Your task to perform on an android device: move a message to another label in the gmail app Image 0: 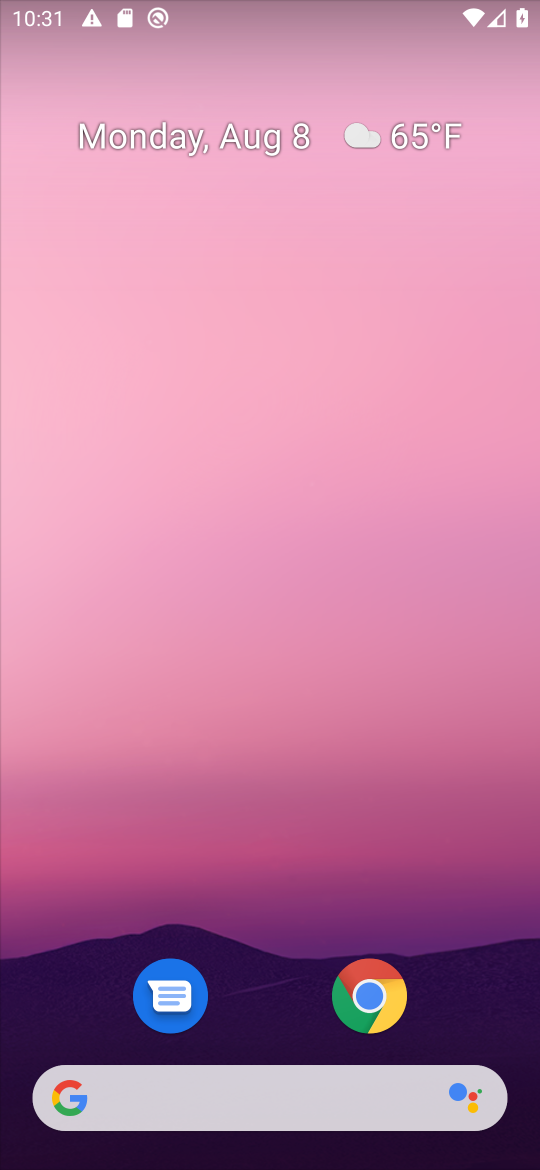
Step 0: press home button
Your task to perform on an android device: move a message to another label in the gmail app Image 1: 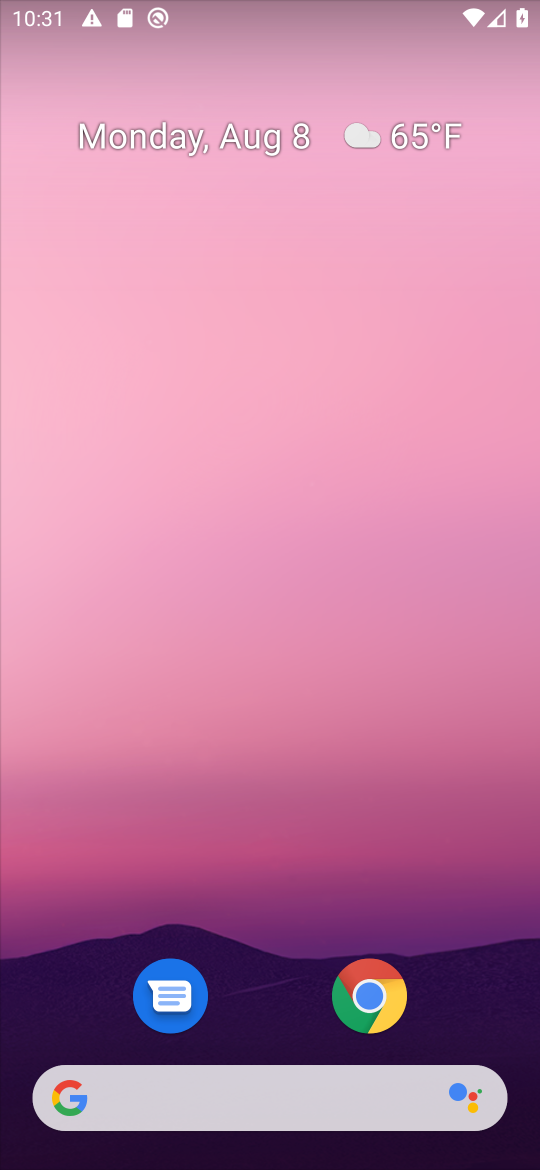
Step 1: drag from (286, 1031) to (162, 437)
Your task to perform on an android device: move a message to another label in the gmail app Image 2: 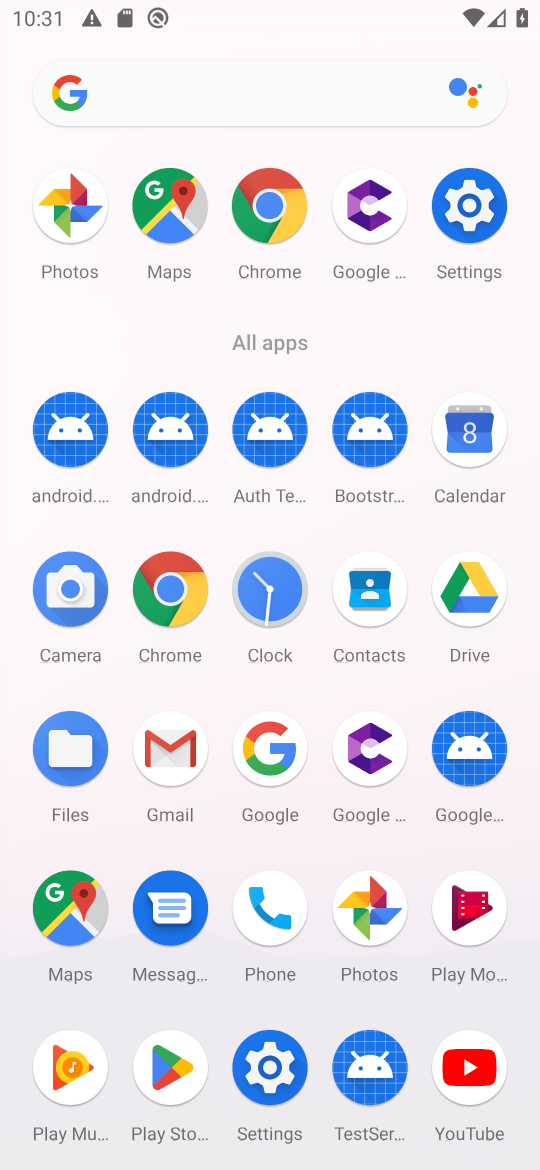
Step 2: click (181, 752)
Your task to perform on an android device: move a message to another label in the gmail app Image 3: 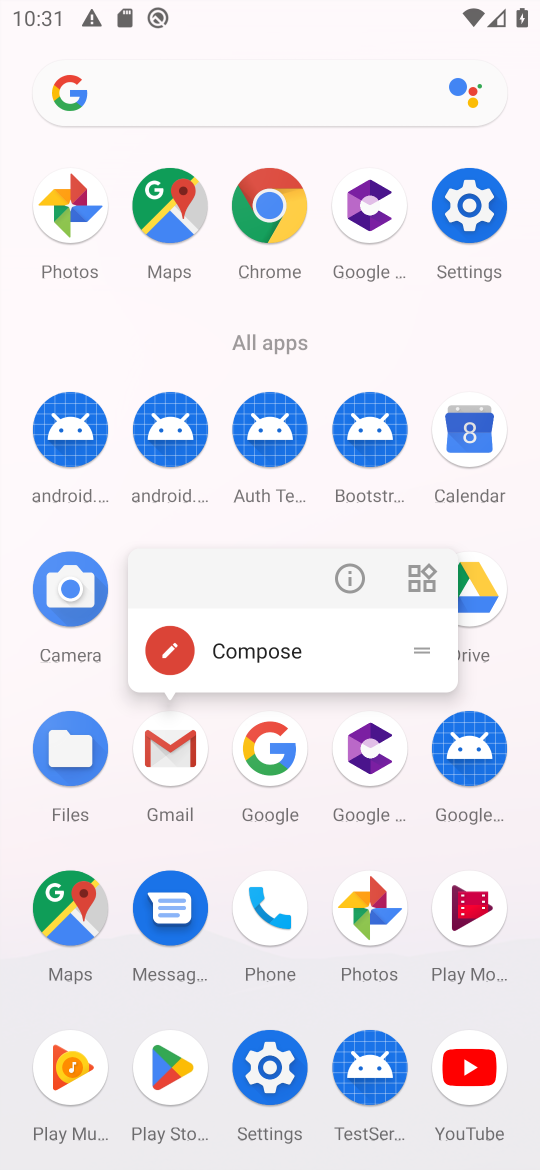
Step 3: click (167, 757)
Your task to perform on an android device: move a message to another label in the gmail app Image 4: 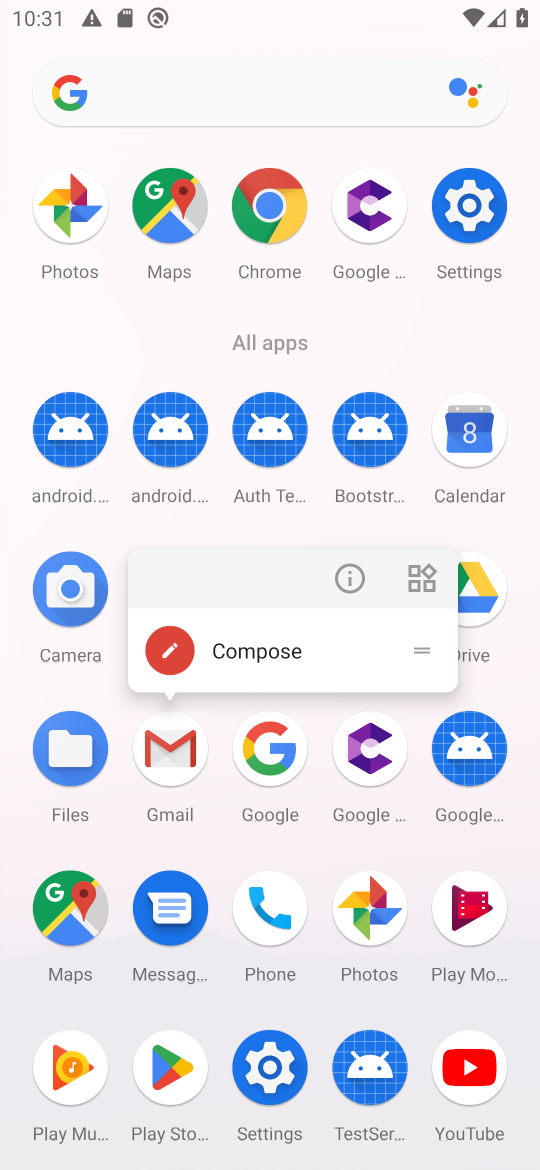
Step 4: click (161, 762)
Your task to perform on an android device: move a message to another label in the gmail app Image 5: 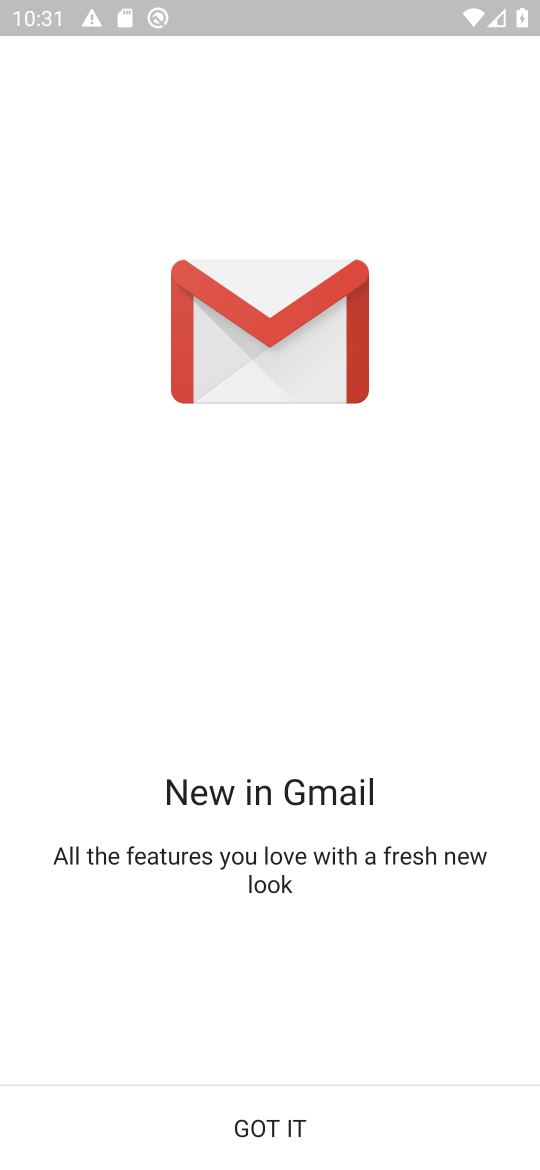
Step 5: click (294, 1132)
Your task to perform on an android device: move a message to another label in the gmail app Image 6: 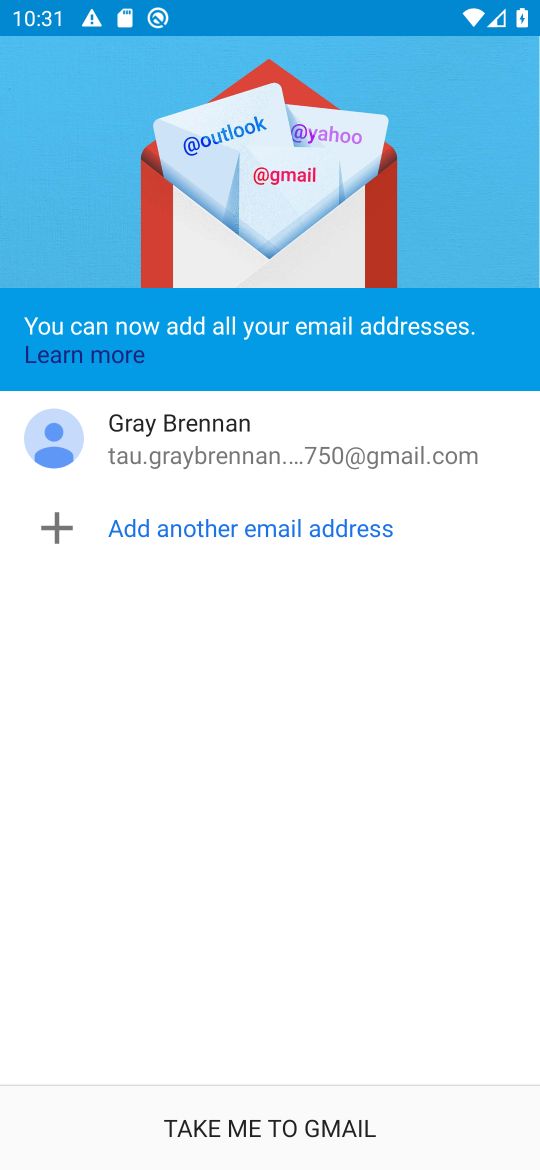
Step 6: click (283, 1137)
Your task to perform on an android device: move a message to another label in the gmail app Image 7: 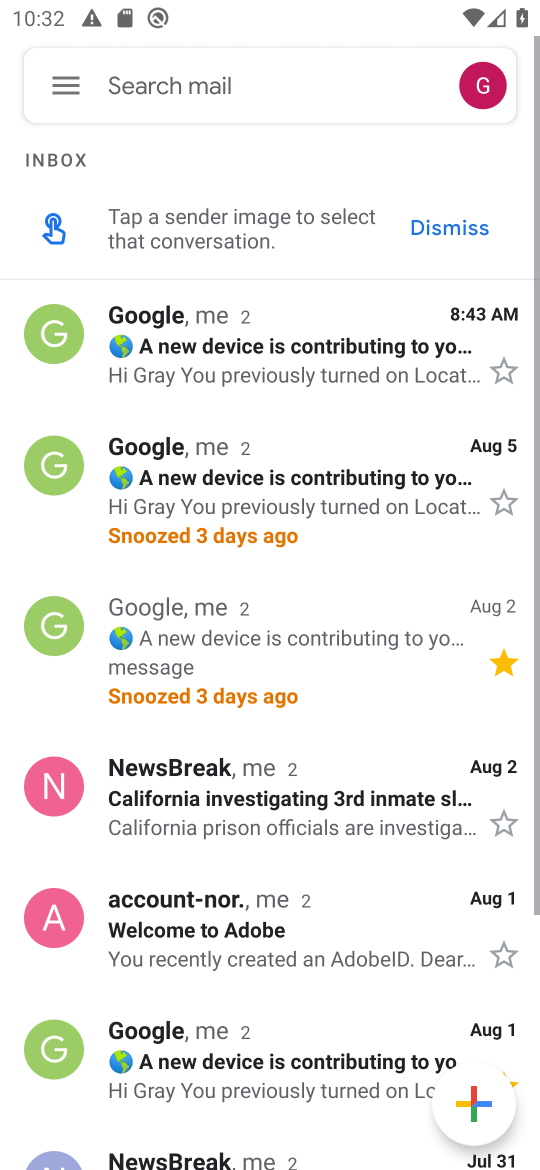
Step 7: click (344, 381)
Your task to perform on an android device: move a message to another label in the gmail app Image 8: 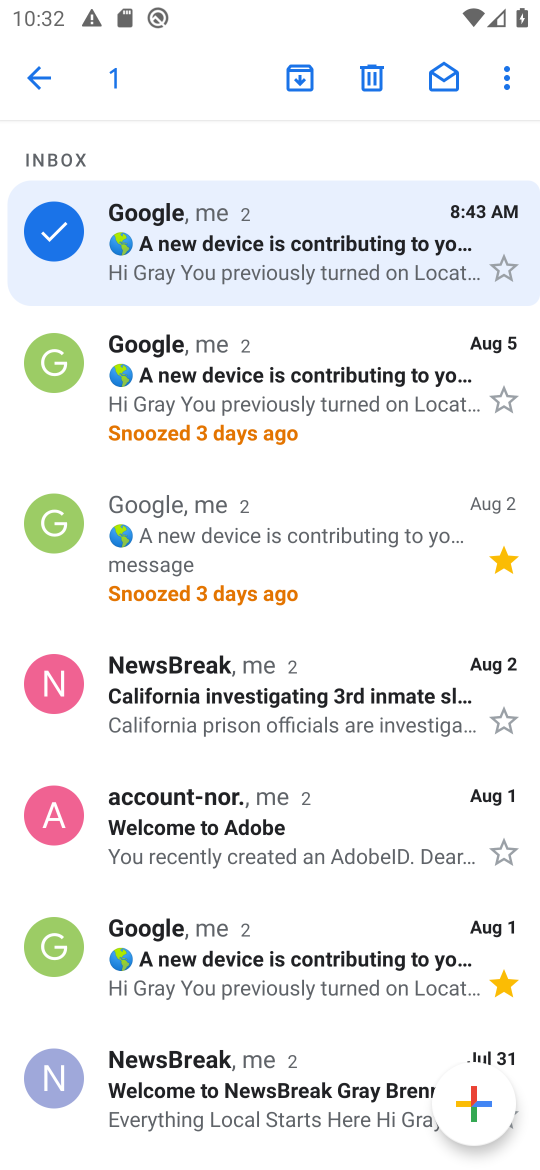
Step 8: click (512, 76)
Your task to perform on an android device: move a message to another label in the gmail app Image 9: 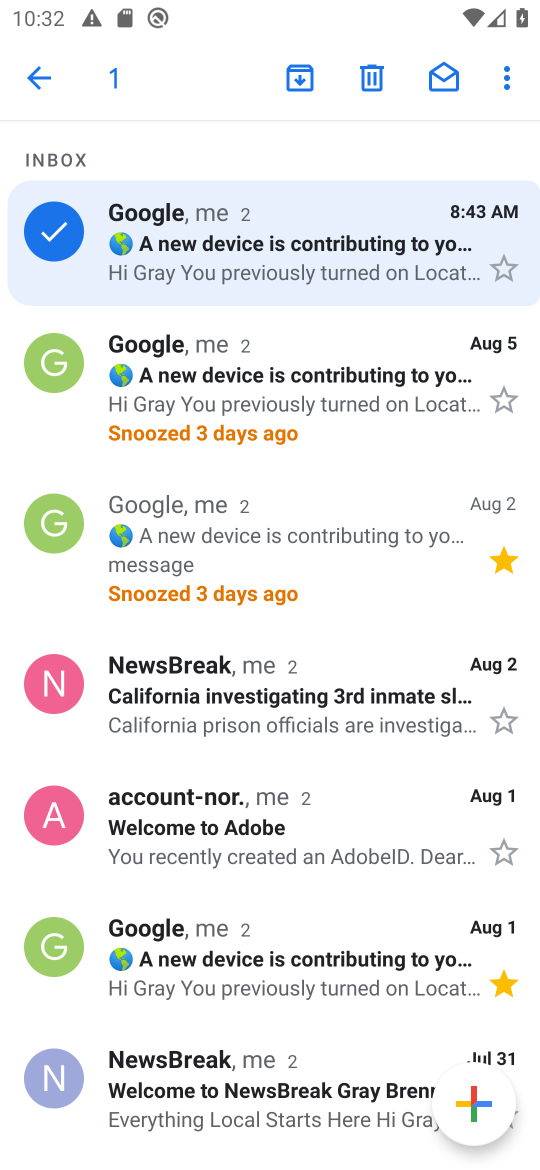
Step 9: click (514, 80)
Your task to perform on an android device: move a message to another label in the gmail app Image 10: 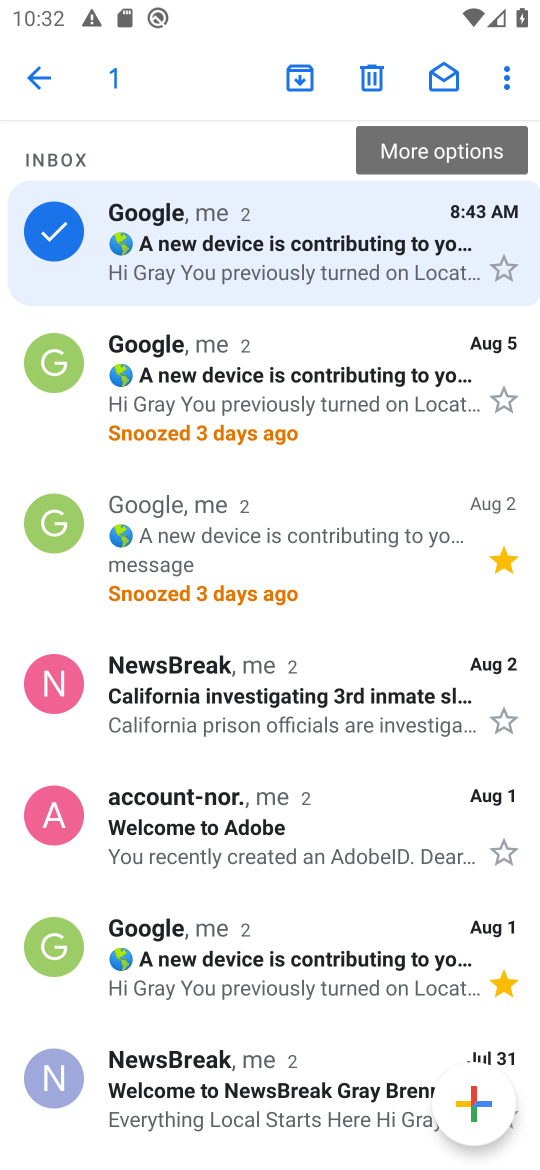
Step 10: click (365, 244)
Your task to perform on an android device: move a message to another label in the gmail app Image 11: 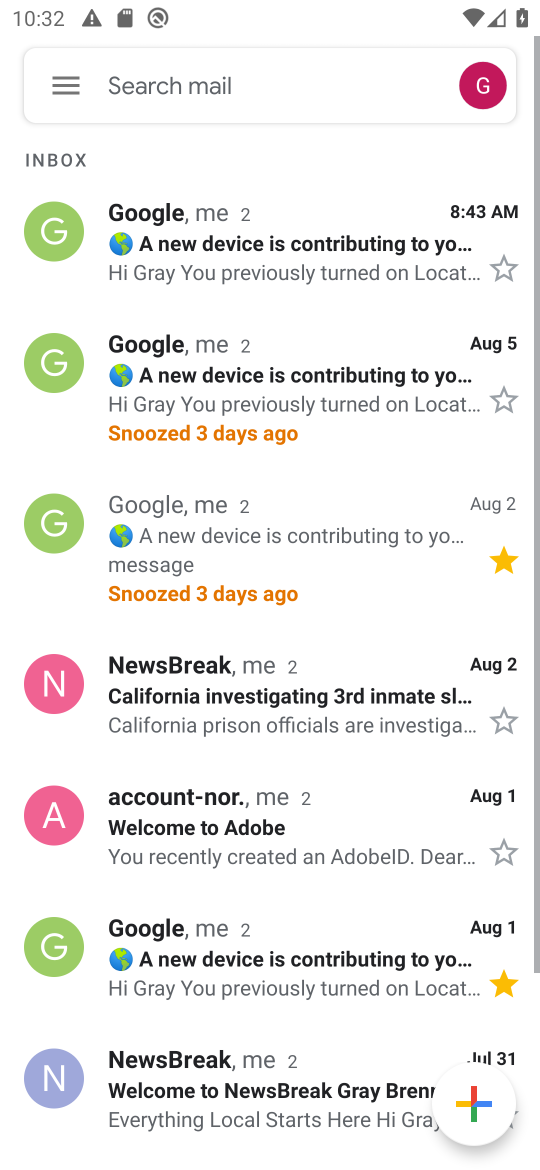
Step 11: click (364, 244)
Your task to perform on an android device: move a message to another label in the gmail app Image 12: 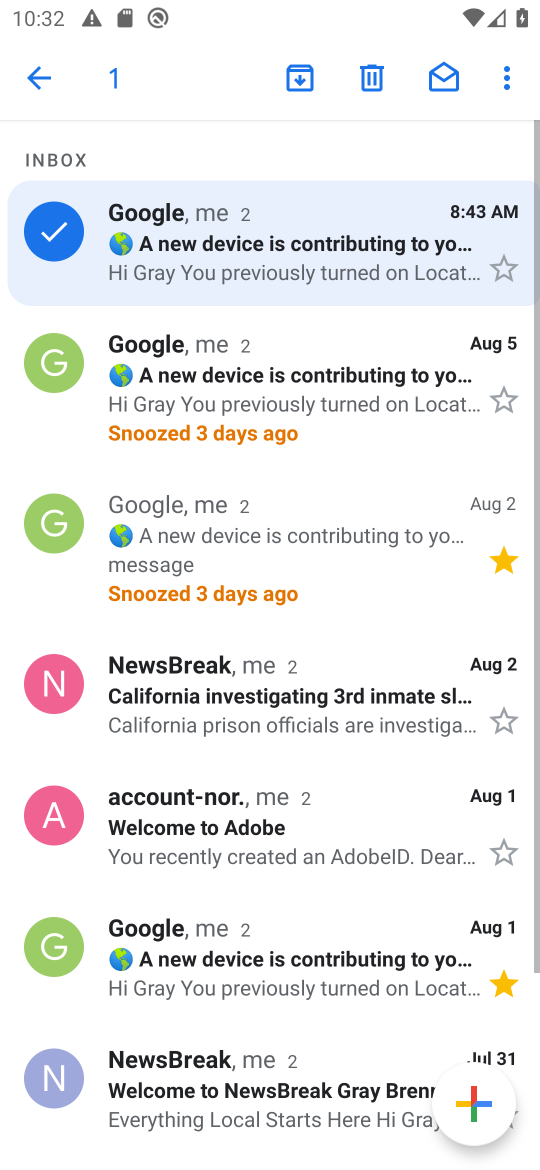
Step 12: click (364, 244)
Your task to perform on an android device: move a message to another label in the gmail app Image 13: 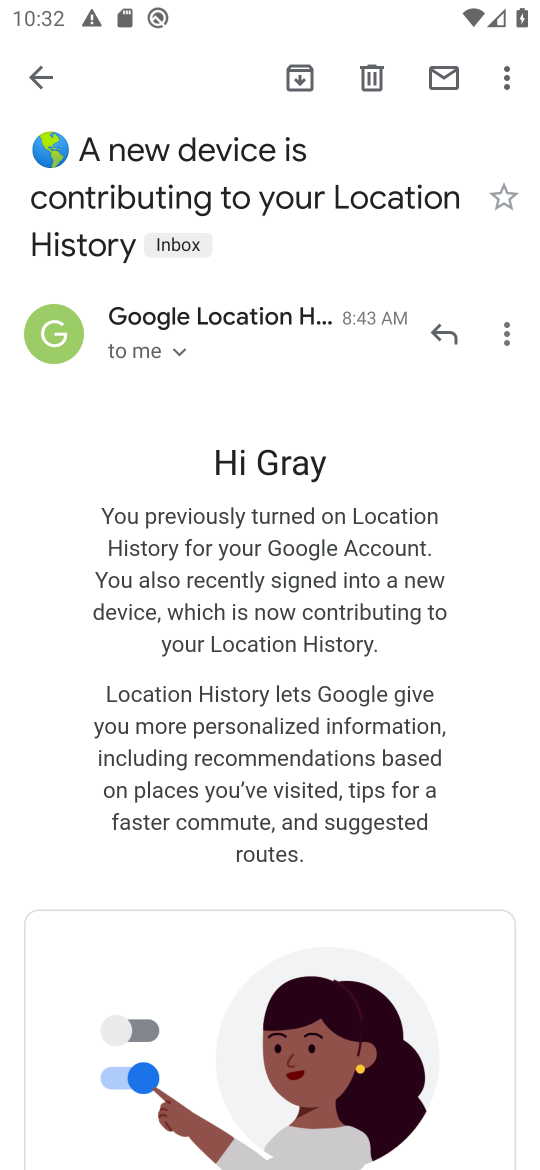
Step 13: click (516, 79)
Your task to perform on an android device: move a message to another label in the gmail app Image 14: 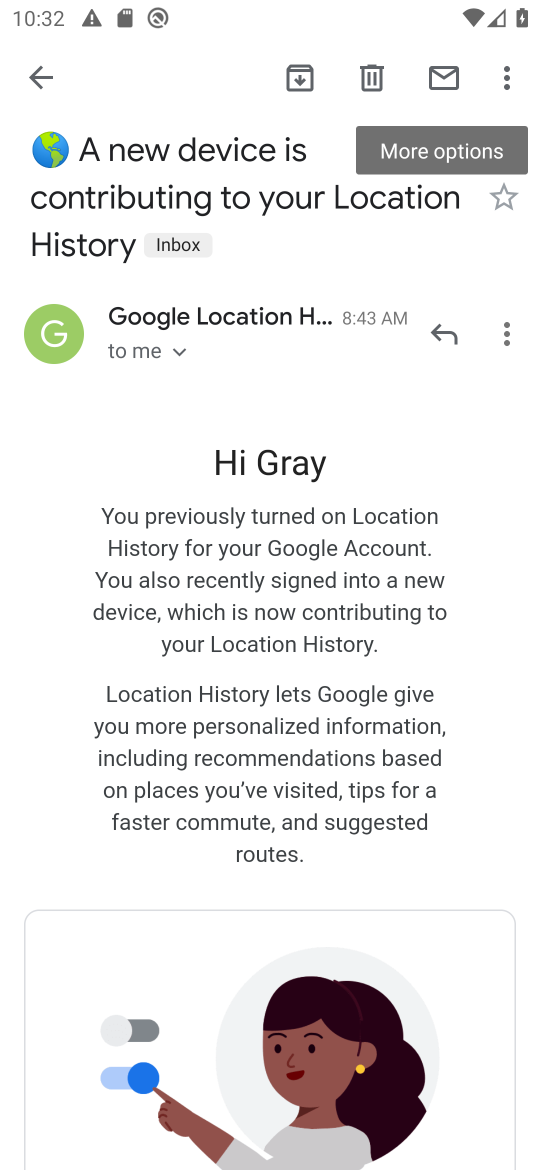
Step 14: click (516, 79)
Your task to perform on an android device: move a message to another label in the gmail app Image 15: 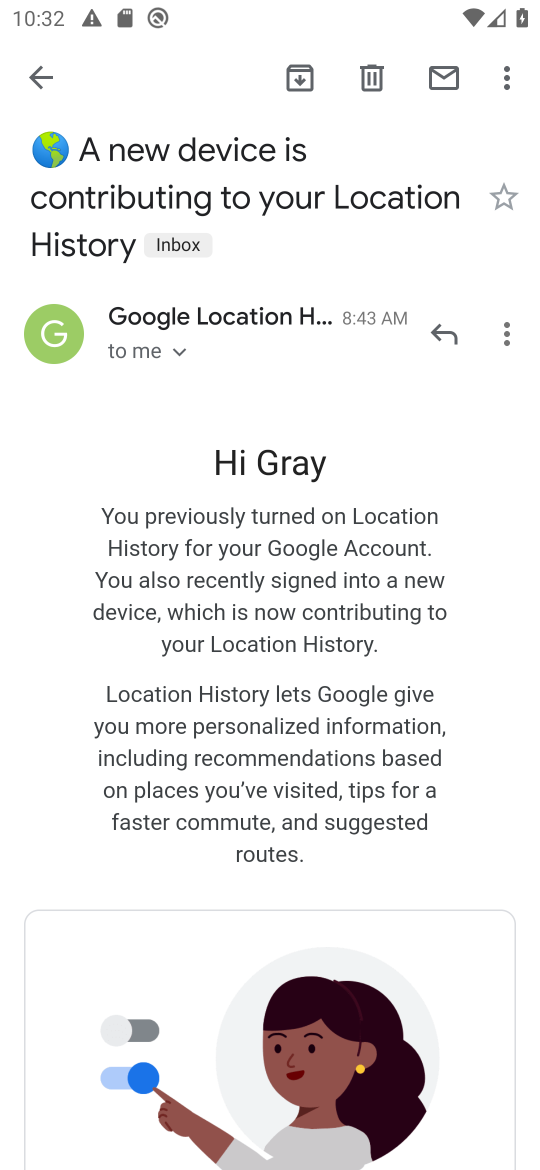
Step 15: click (504, 75)
Your task to perform on an android device: move a message to another label in the gmail app Image 16: 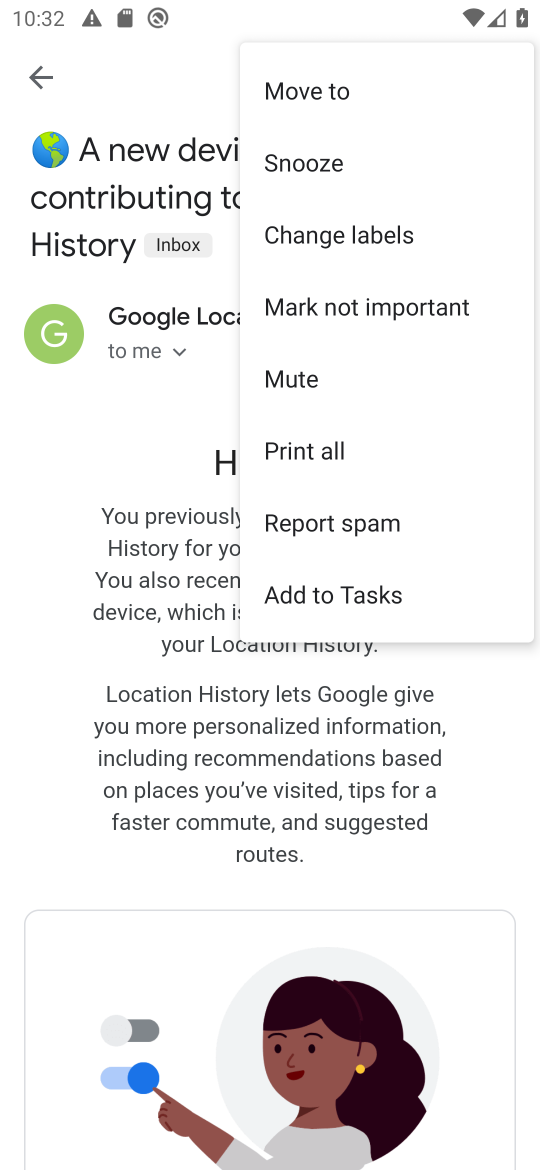
Step 16: click (322, 241)
Your task to perform on an android device: move a message to another label in the gmail app Image 17: 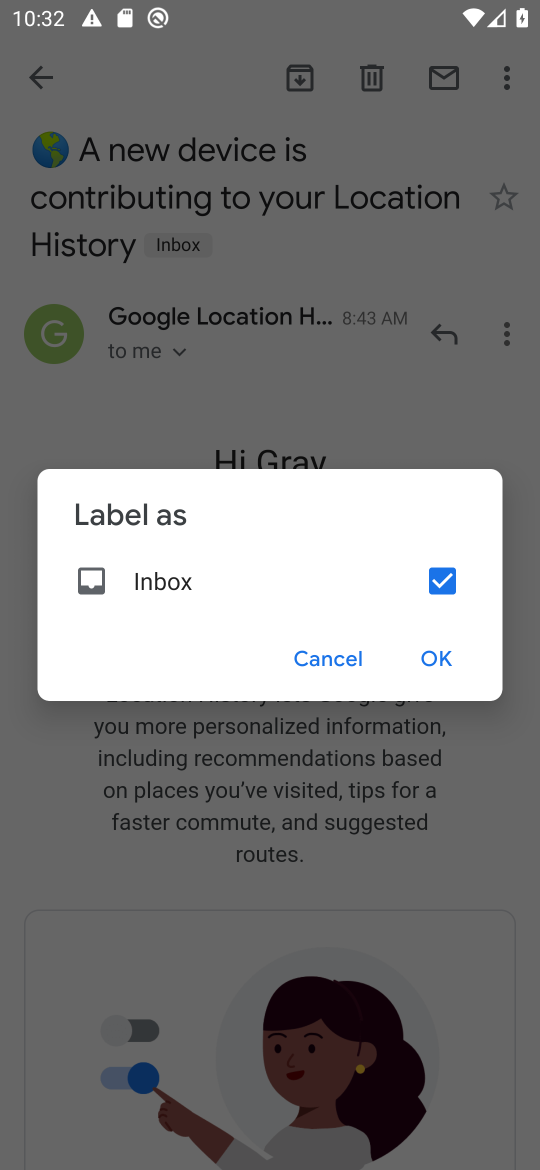
Step 17: click (428, 671)
Your task to perform on an android device: move a message to another label in the gmail app Image 18: 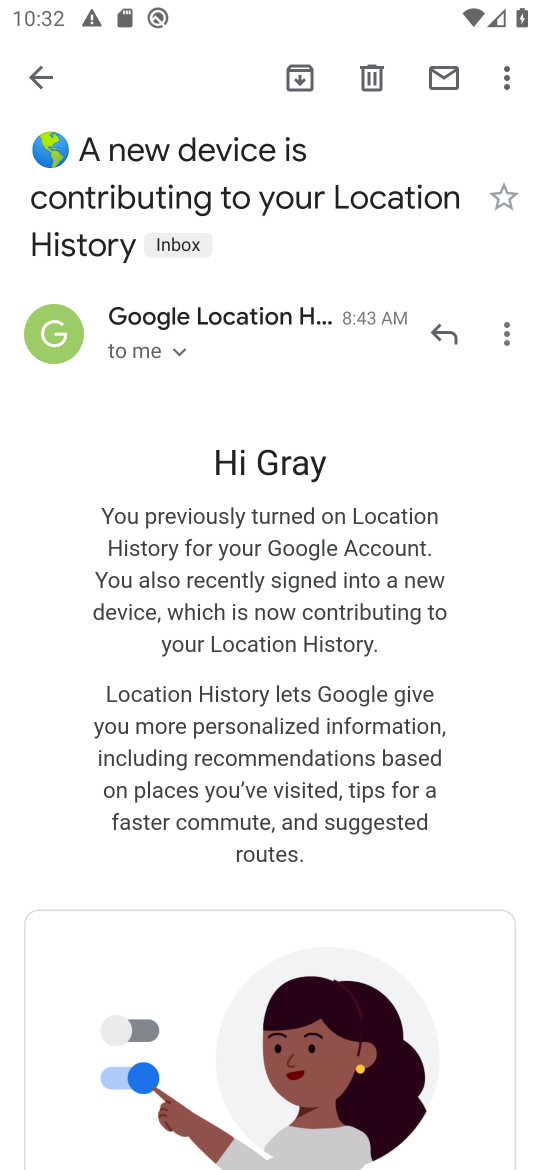
Step 18: task complete